Your task to perform on an android device: Go to display settings Image 0: 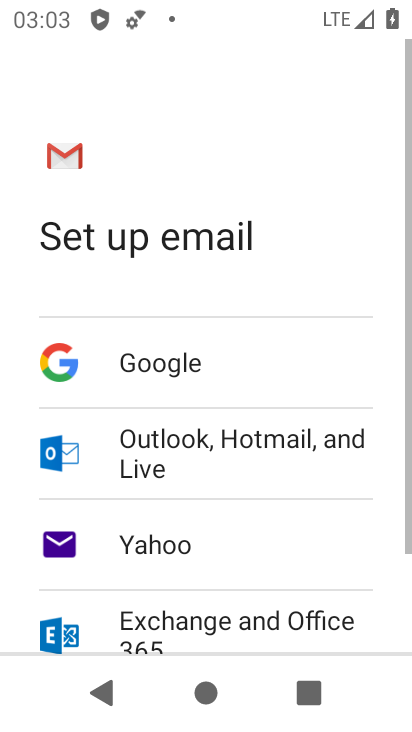
Step 0: press home button
Your task to perform on an android device: Go to display settings Image 1: 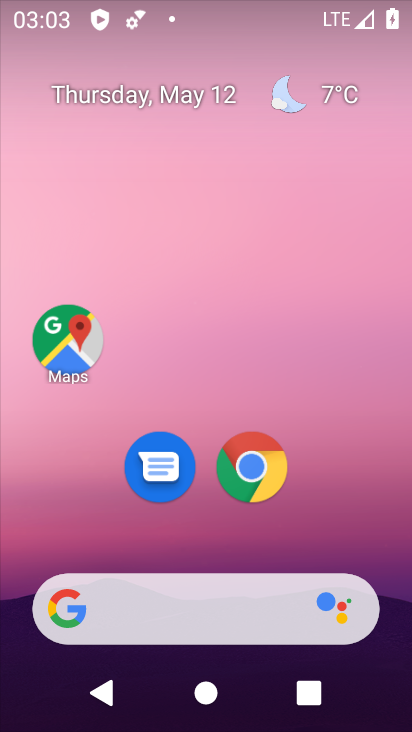
Step 1: drag from (355, 537) to (318, 52)
Your task to perform on an android device: Go to display settings Image 2: 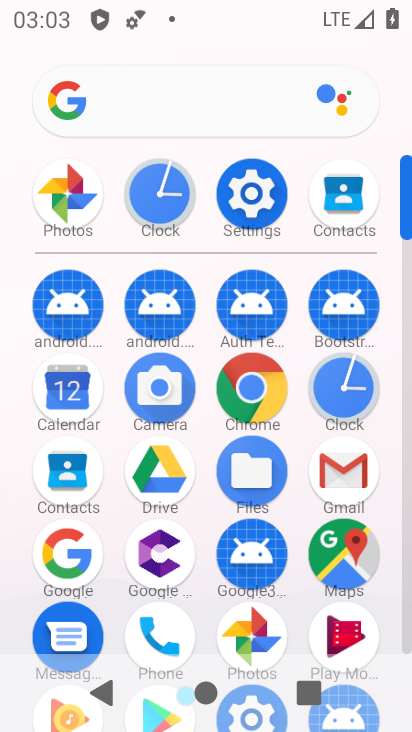
Step 2: click (241, 200)
Your task to perform on an android device: Go to display settings Image 3: 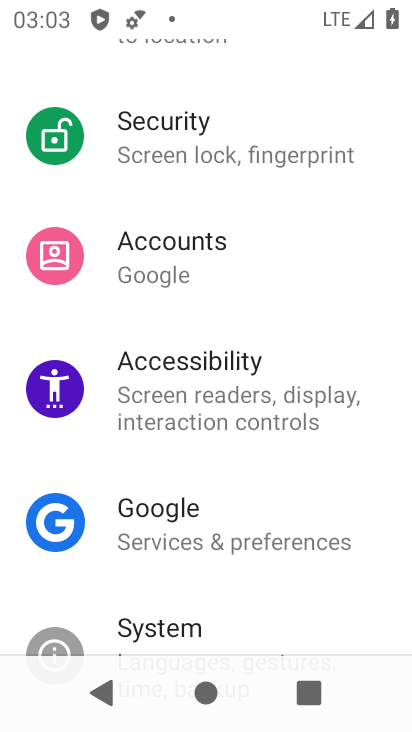
Step 3: drag from (184, 150) to (162, 646)
Your task to perform on an android device: Go to display settings Image 4: 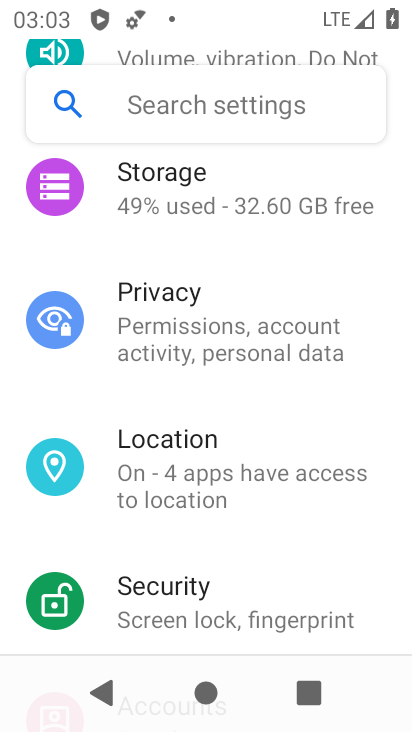
Step 4: drag from (148, 242) to (147, 690)
Your task to perform on an android device: Go to display settings Image 5: 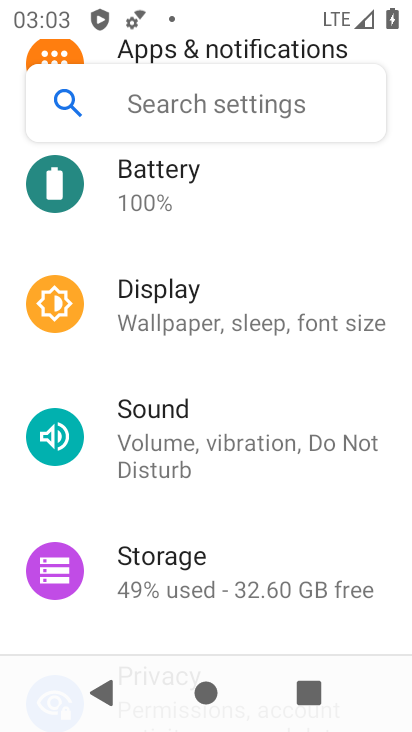
Step 5: click (145, 310)
Your task to perform on an android device: Go to display settings Image 6: 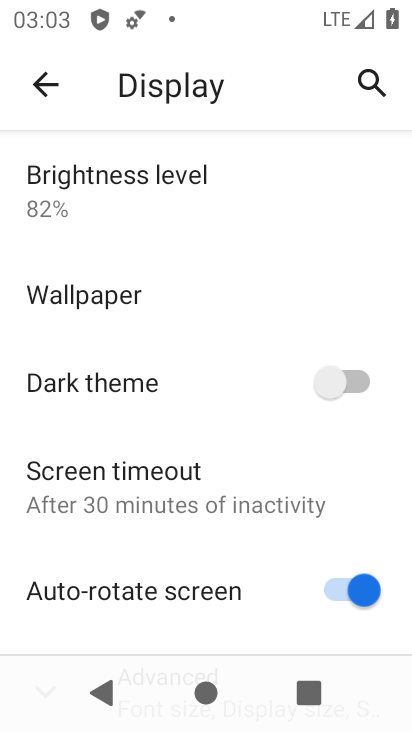
Step 6: task complete